Your task to perform on an android device: turn on location history Image 0: 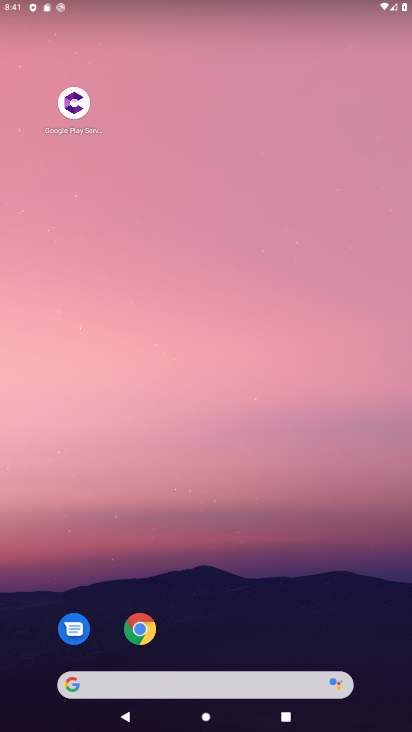
Step 0: drag from (257, 619) to (290, 71)
Your task to perform on an android device: turn on location history Image 1: 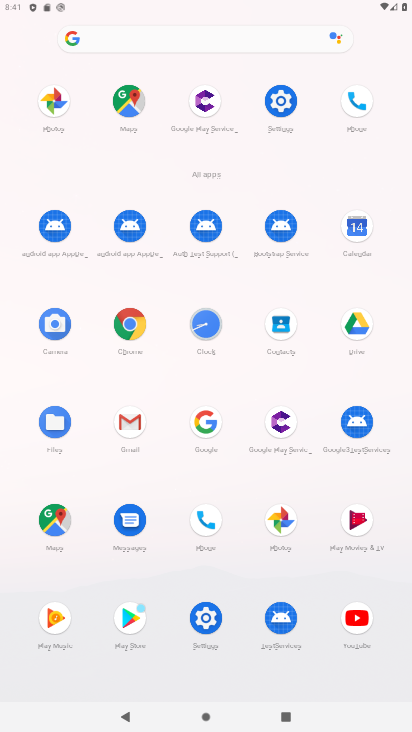
Step 1: click (283, 89)
Your task to perform on an android device: turn on location history Image 2: 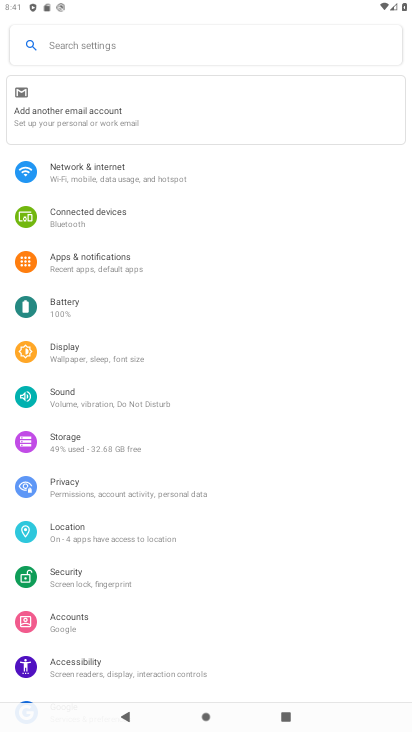
Step 2: click (93, 536)
Your task to perform on an android device: turn on location history Image 3: 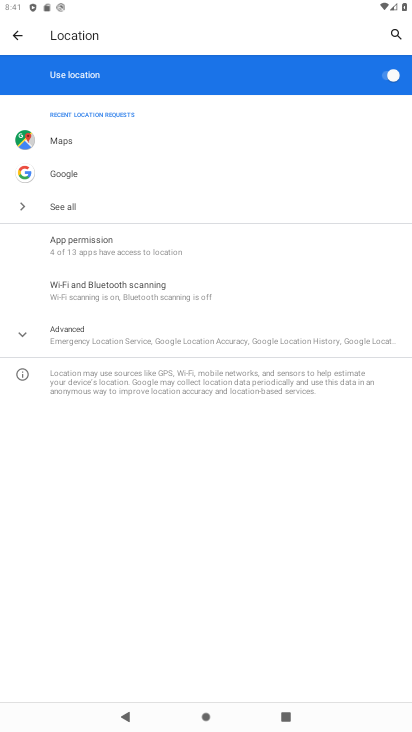
Step 3: click (164, 343)
Your task to perform on an android device: turn on location history Image 4: 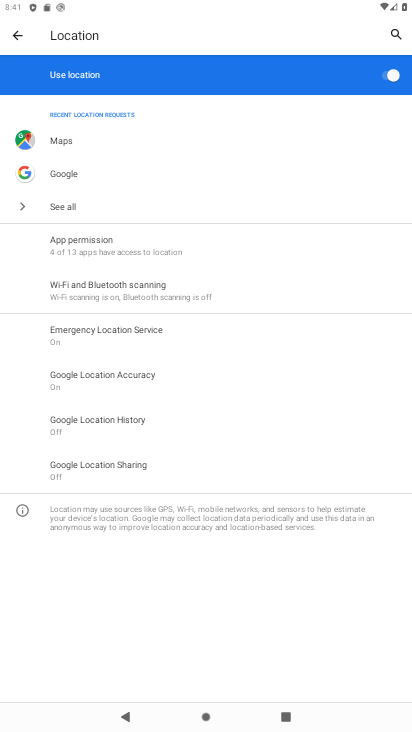
Step 4: click (144, 416)
Your task to perform on an android device: turn on location history Image 5: 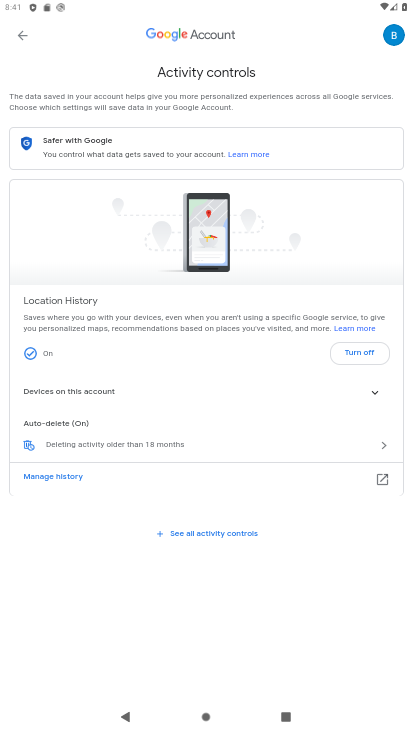
Step 5: task complete